Your task to perform on an android device: Open display settings Image 0: 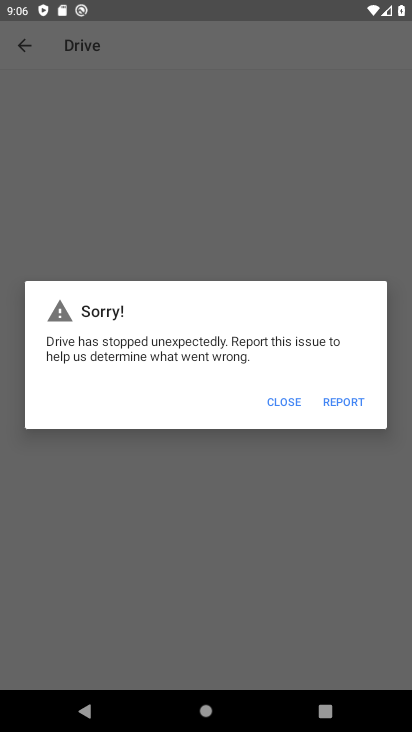
Step 0: press home button
Your task to perform on an android device: Open display settings Image 1: 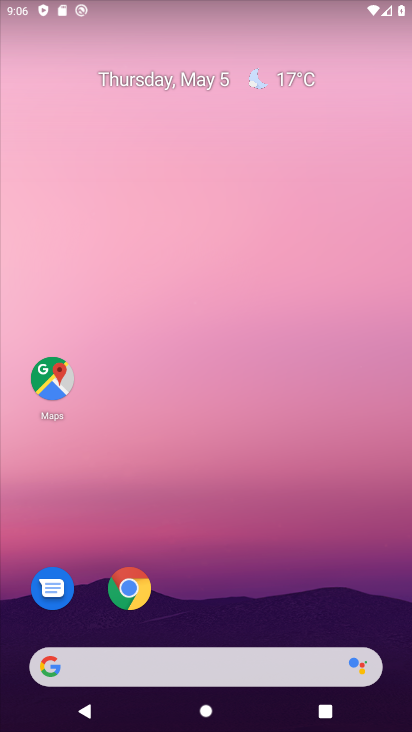
Step 1: drag from (215, 605) to (272, 150)
Your task to perform on an android device: Open display settings Image 2: 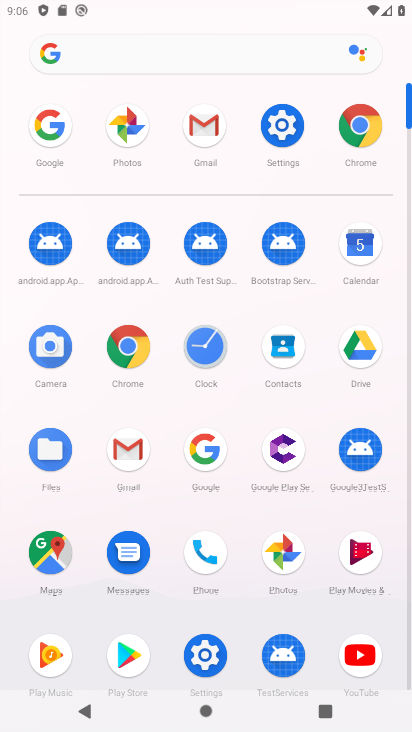
Step 2: click (204, 644)
Your task to perform on an android device: Open display settings Image 3: 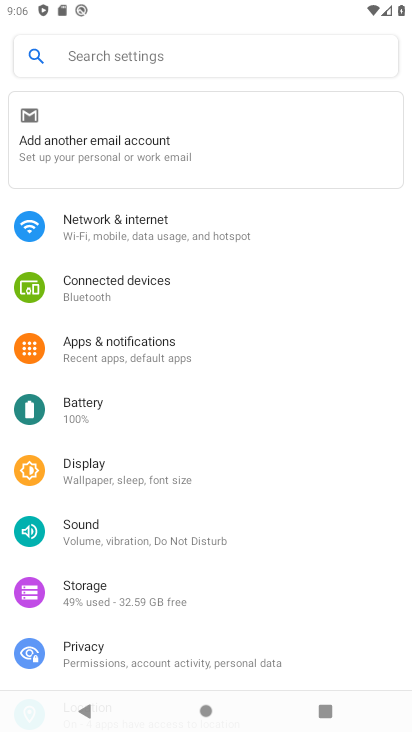
Step 3: click (124, 470)
Your task to perform on an android device: Open display settings Image 4: 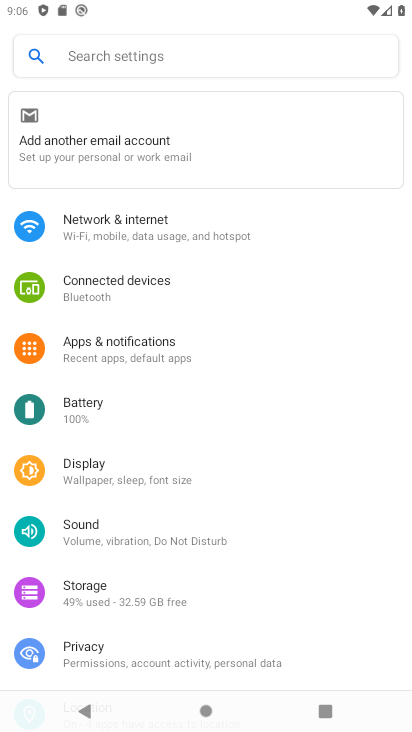
Step 4: click (130, 473)
Your task to perform on an android device: Open display settings Image 5: 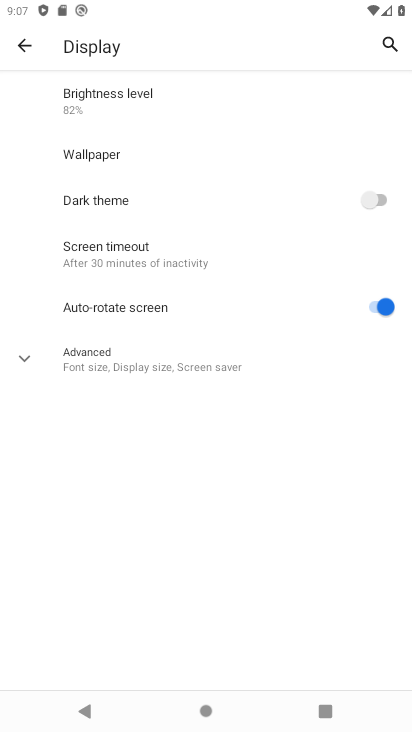
Step 5: task complete